Your task to perform on an android device: find photos in the google photos app Image 0: 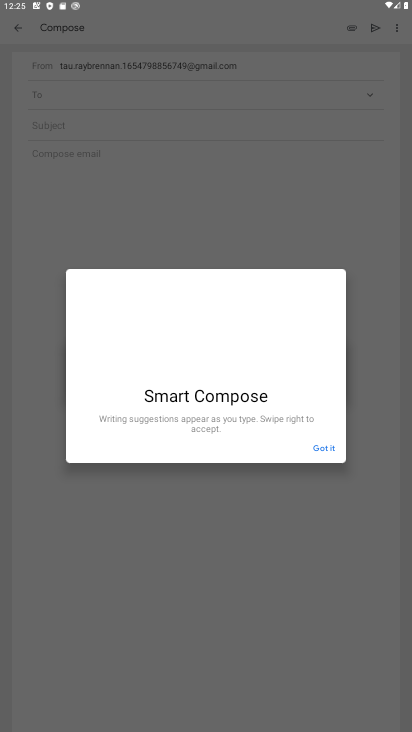
Step 0: press home button
Your task to perform on an android device: find photos in the google photos app Image 1: 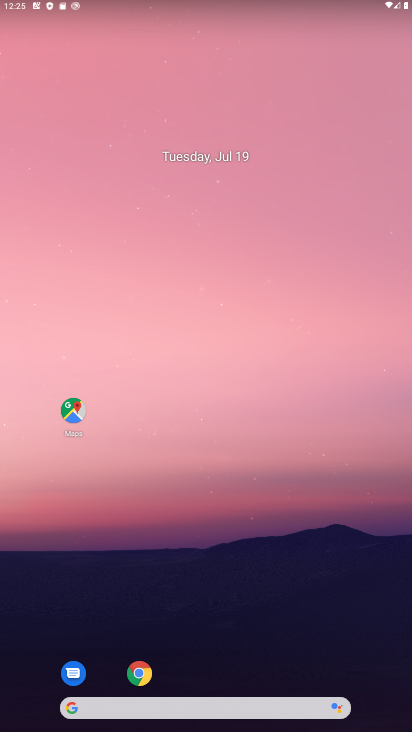
Step 1: drag from (390, 666) to (327, 103)
Your task to perform on an android device: find photos in the google photos app Image 2: 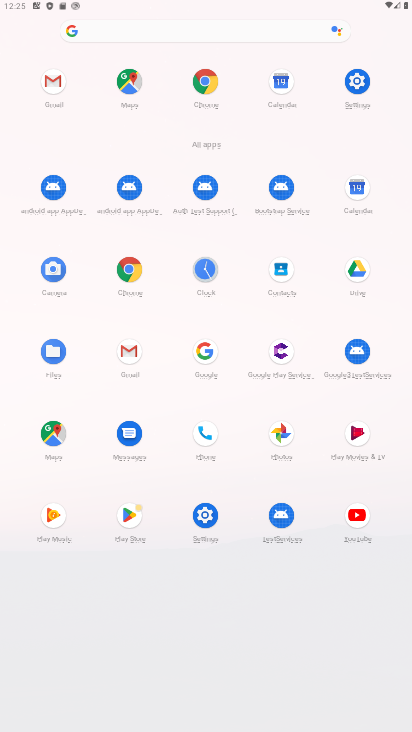
Step 2: click (287, 440)
Your task to perform on an android device: find photos in the google photos app Image 3: 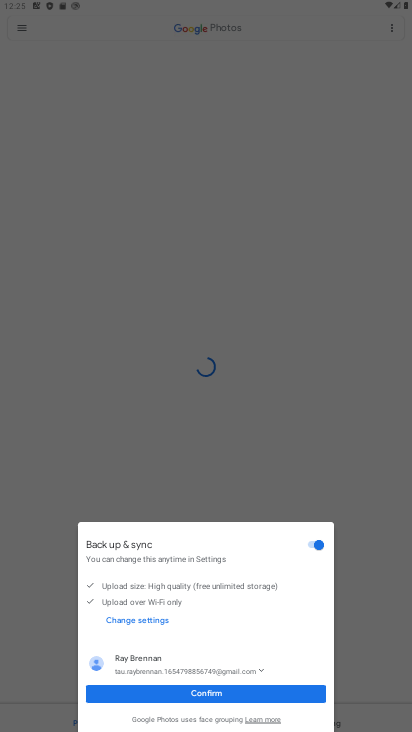
Step 3: click (205, 695)
Your task to perform on an android device: find photos in the google photos app Image 4: 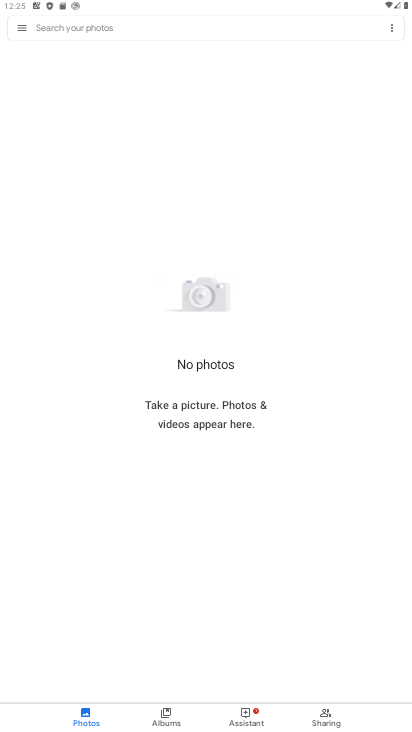
Step 4: task complete